Your task to perform on an android device: choose inbox layout in the gmail app Image 0: 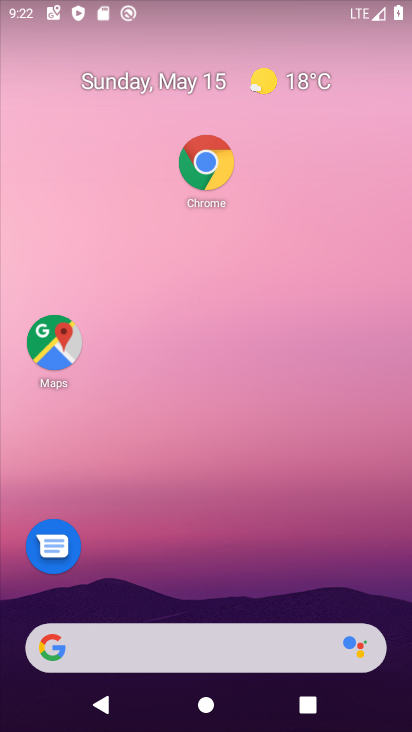
Step 0: drag from (230, 591) to (298, 238)
Your task to perform on an android device: choose inbox layout in the gmail app Image 1: 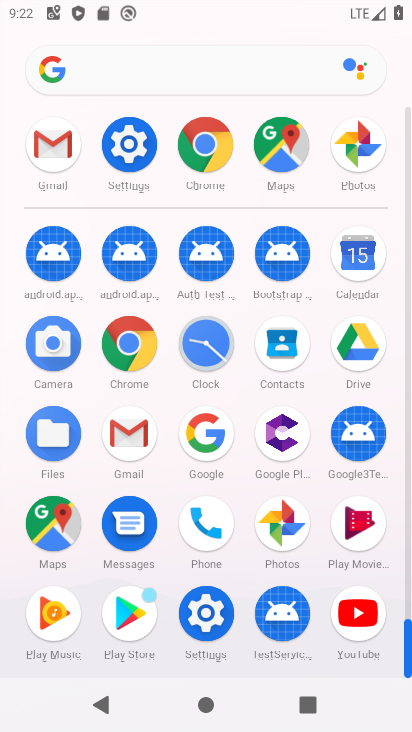
Step 1: click (62, 136)
Your task to perform on an android device: choose inbox layout in the gmail app Image 2: 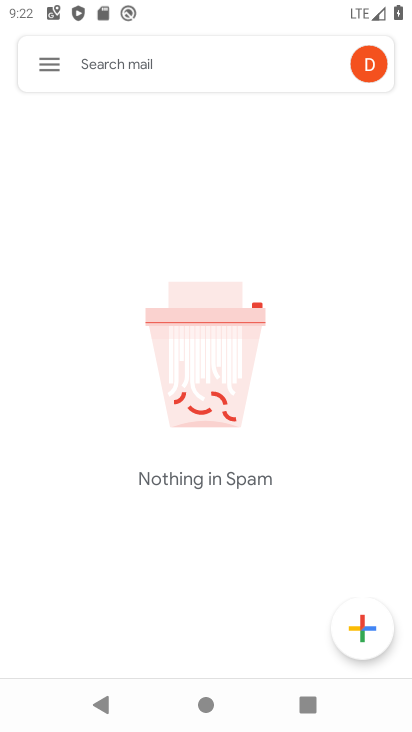
Step 2: click (47, 60)
Your task to perform on an android device: choose inbox layout in the gmail app Image 3: 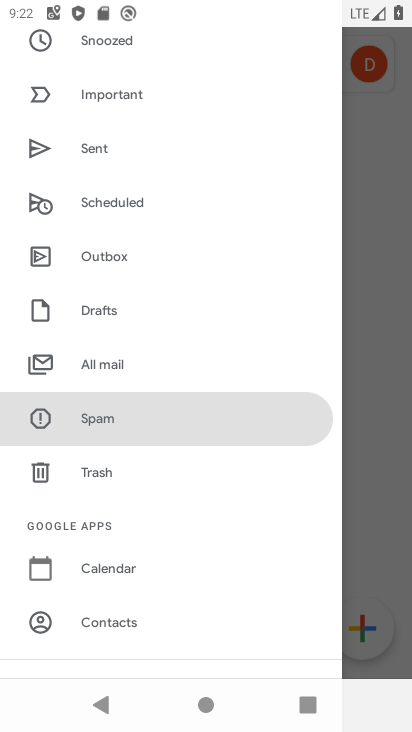
Step 3: drag from (134, 142) to (147, 676)
Your task to perform on an android device: choose inbox layout in the gmail app Image 4: 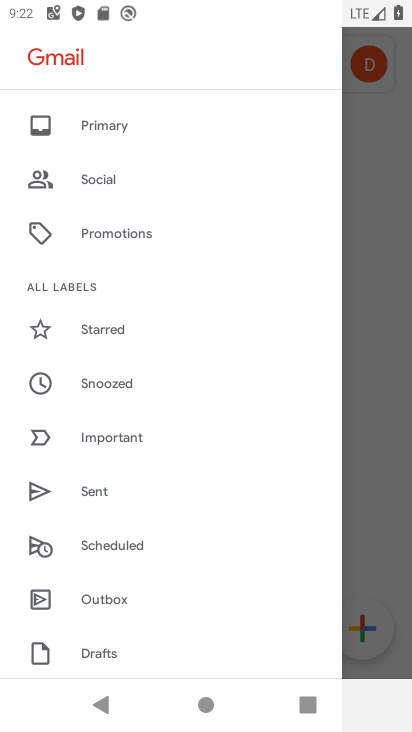
Step 4: drag from (148, 603) to (201, 134)
Your task to perform on an android device: choose inbox layout in the gmail app Image 5: 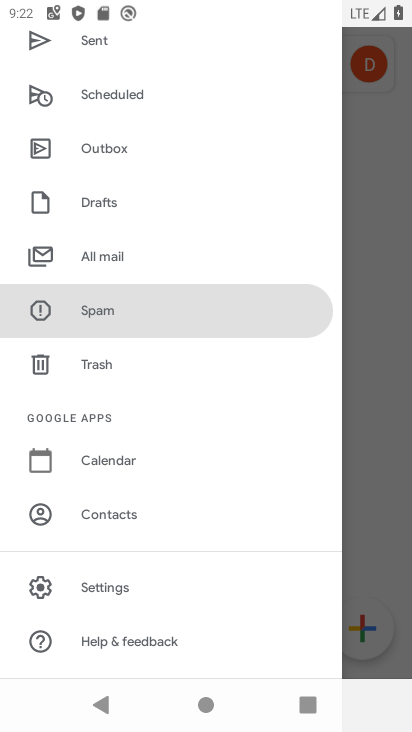
Step 5: click (130, 583)
Your task to perform on an android device: choose inbox layout in the gmail app Image 6: 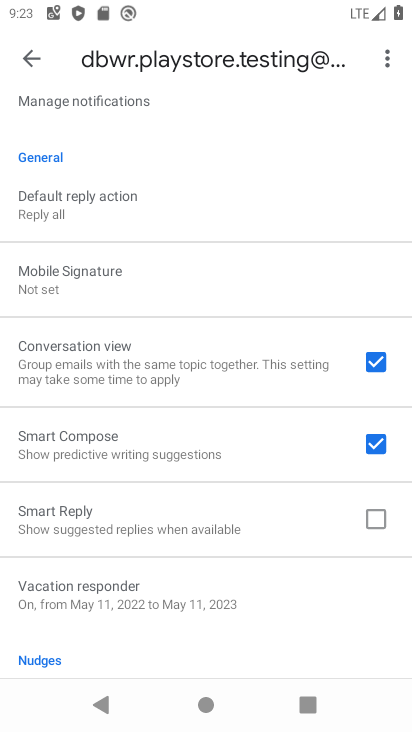
Step 6: drag from (150, 582) to (225, 307)
Your task to perform on an android device: choose inbox layout in the gmail app Image 7: 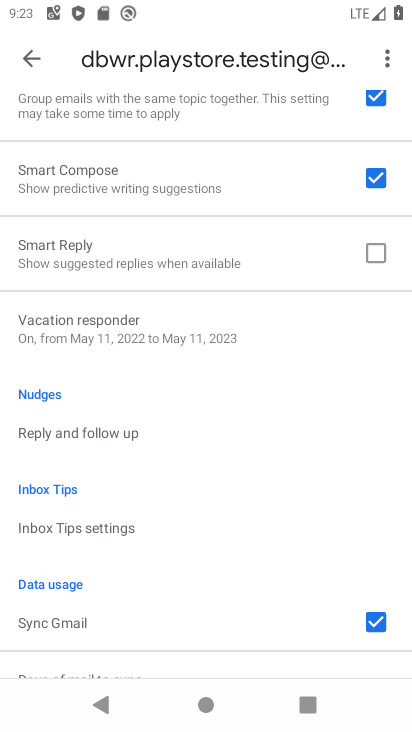
Step 7: drag from (148, 218) to (187, 582)
Your task to perform on an android device: choose inbox layout in the gmail app Image 8: 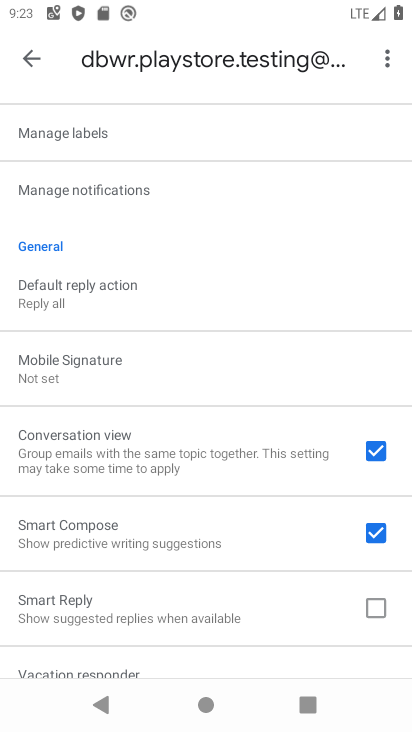
Step 8: drag from (174, 303) to (191, 680)
Your task to perform on an android device: choose inbox layout in the gmail app Image 9: 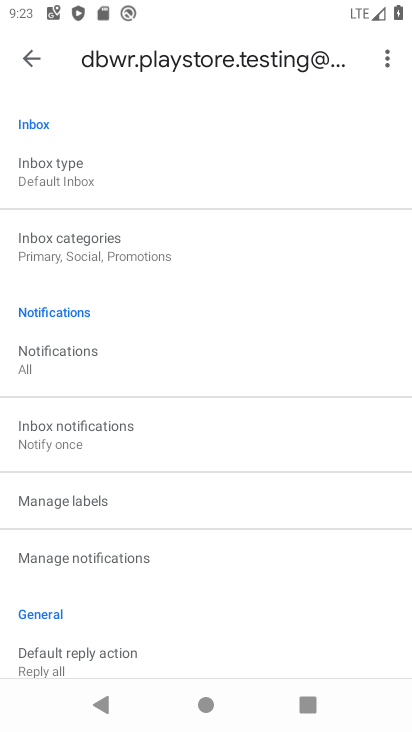
Step 9: click (168, 177)
Your task to perform on an android device: choose inbox layout in the gmail app Image 10: 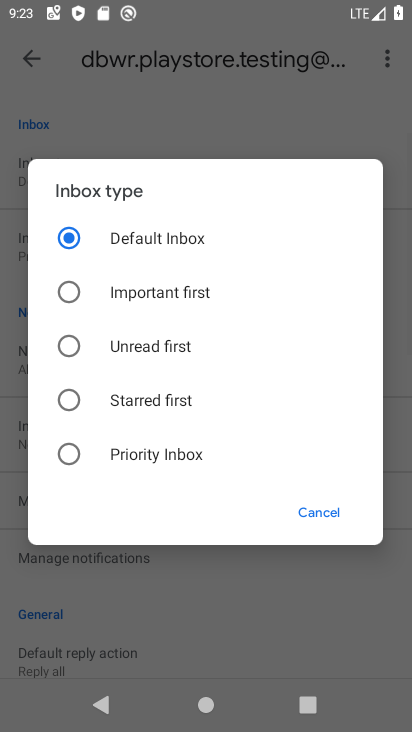
Step 10: click (123, 333)
Your task to perform on an android device: choose inbox layout in the gmail app Image 11: 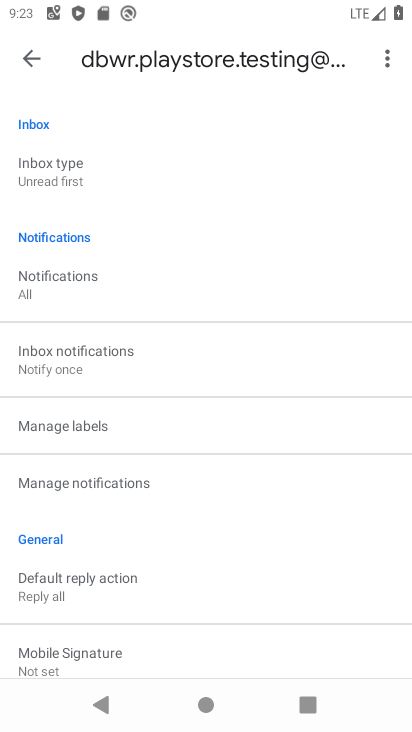
Step 11: task complete